Your task to perform on an android device: Open calendar and show me the first week of next month Image 0: 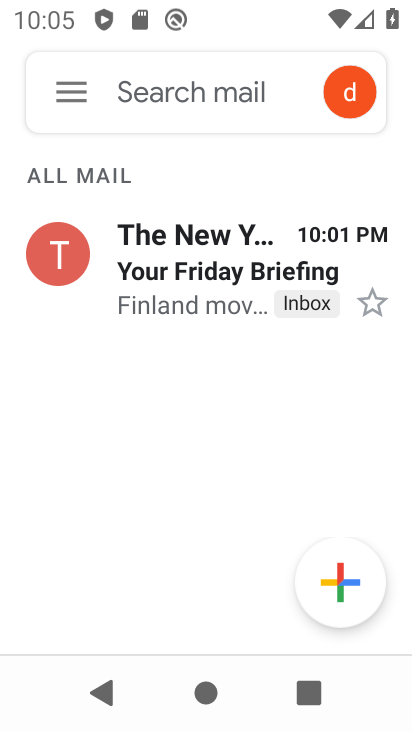
Step 0: press back button
Your task to perform on an android device: Open calendar and show me the first week of next month Image 1: 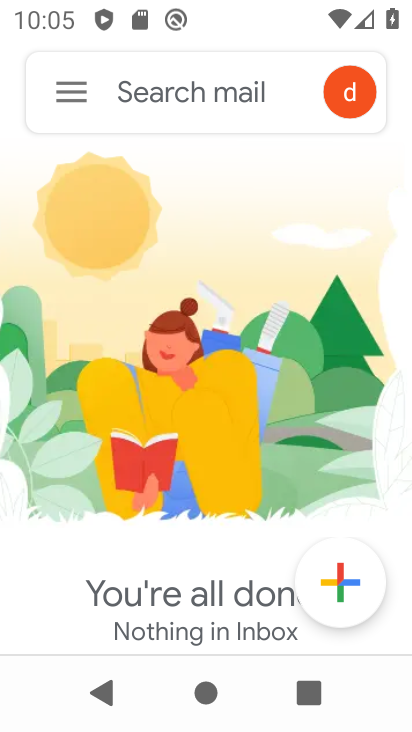
Step 1: press back button
Your task to perform on an android device: Open calendar and show me the first week of next month Image 2: 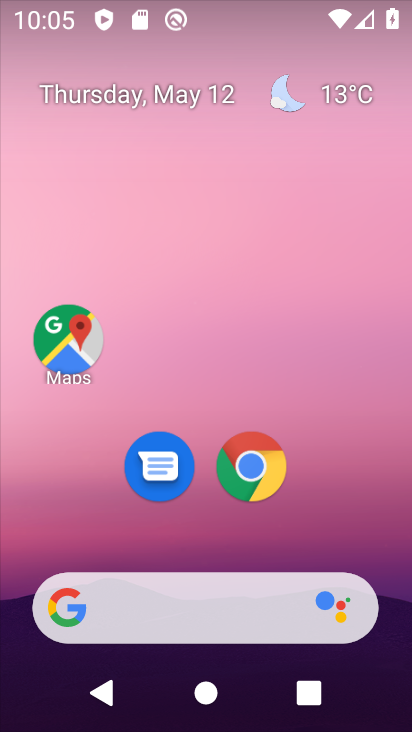
Step 2: drag from (220, 531) to (220, 48)
Your task to perform on an android device: Open calendar and show me the first week of next month Image 3: 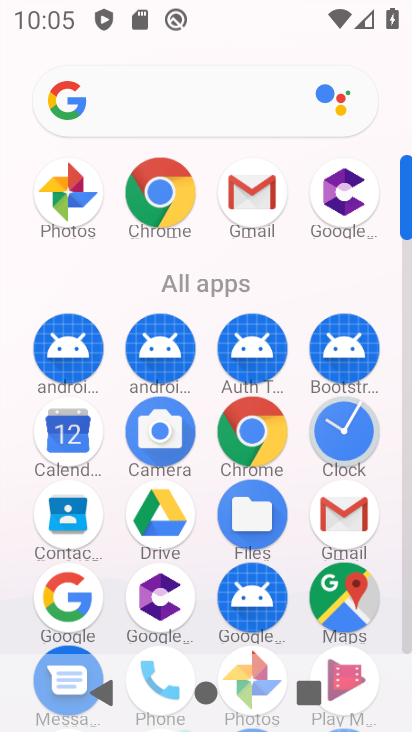
Step 3: click (62, 447)
Your task to perform on an android device: Open calendar and show me the first week of next month Image 4: 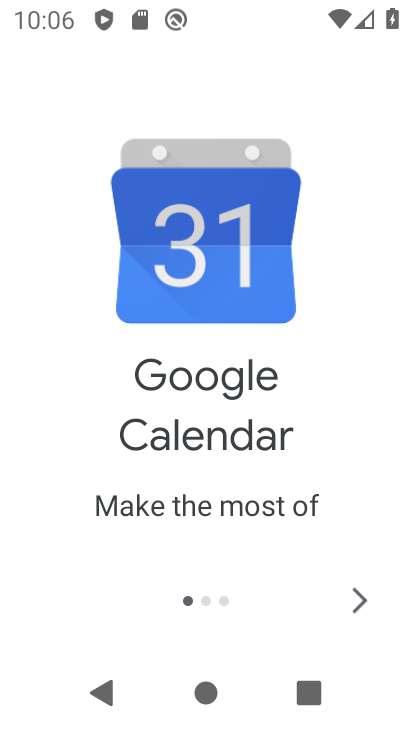
Step 4: click (363, 591)
Your task to perform on an android device: Open calendar and show me the first week of next month Image 5: 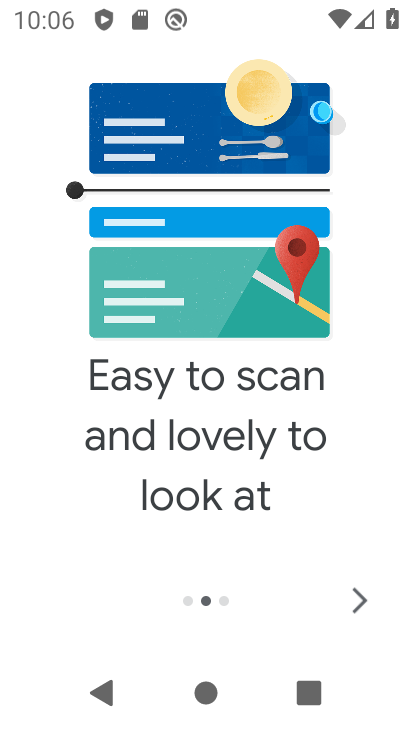
Step 5: click (363, 591)
Your task to perform on an android device: Open calendar and show me the first week of next month Image 6: 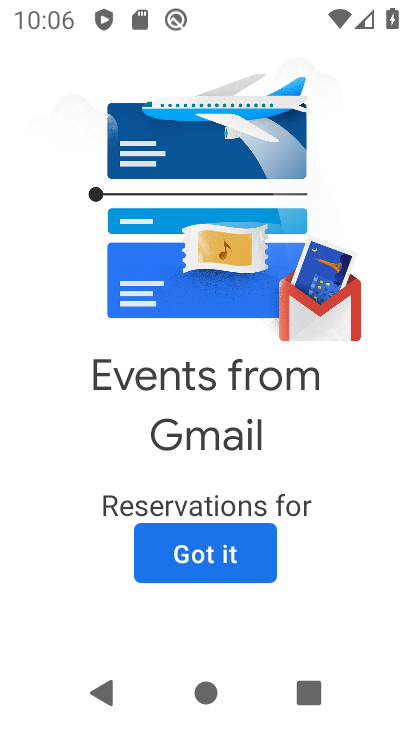
Step 6: click (196, 560)
Your task to perform on an android device: Open calendar and show me the first week of next month Image 7: 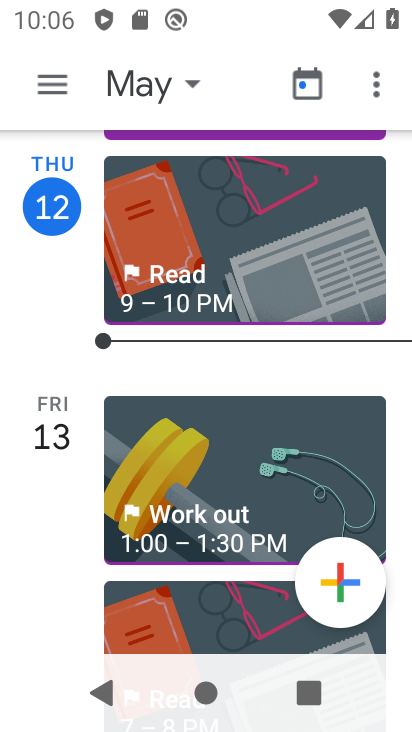
Step 7: click (148, 66)
Your task to perform on an android device: Open calendar and show me the first week of next month Image 8: 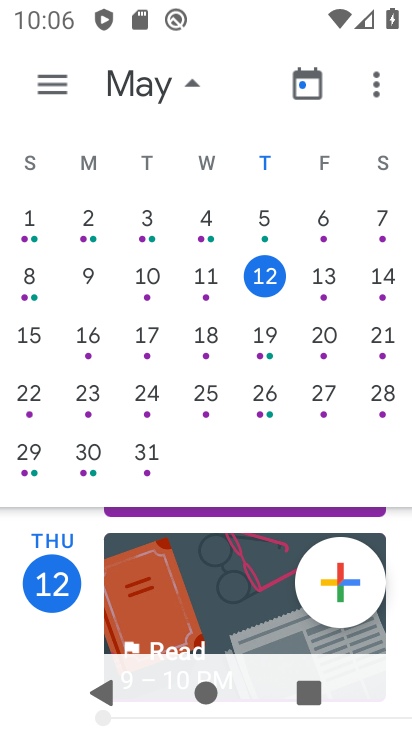
Step 8: drag from (358, 260) to (45, 275)
Your task to perform on an android device: Open calendar and show me the first week of next month Image 9: 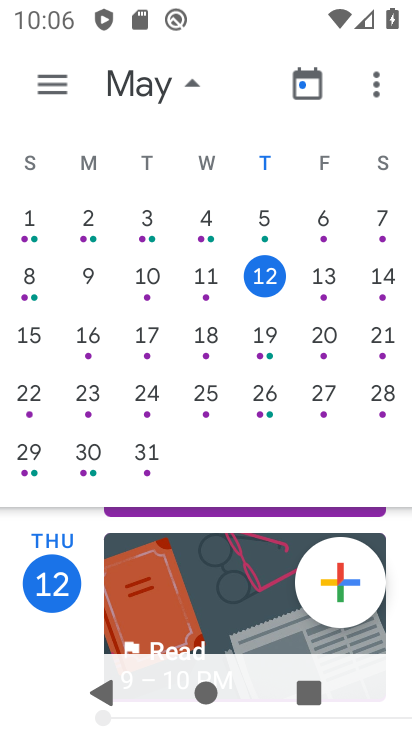
Step 9: drag from (387, 333) to (13, 285)
Your task to perform on an android device: Open calendar and show me the first week of next month Image 10: 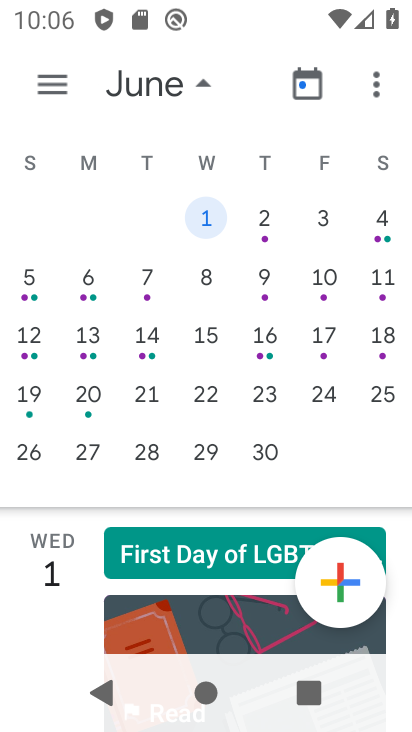
Step 10: click (208, 224)
Your task to perform on an android device: Open calendar and show me the first week of next month Image 11: 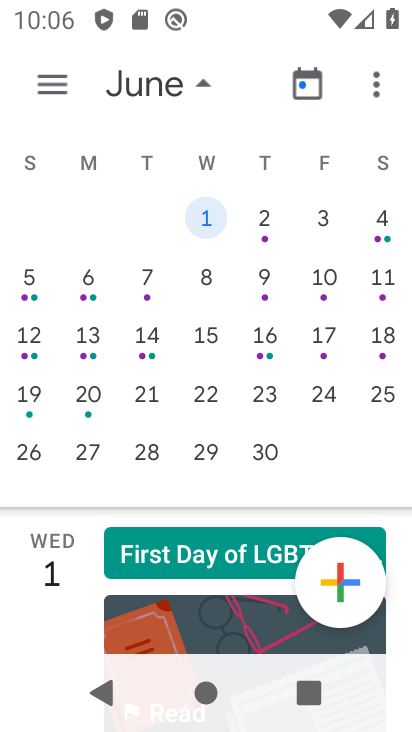
Step 11: task complete